Your task to perform on an android device: Open Wikipedia Image 0: 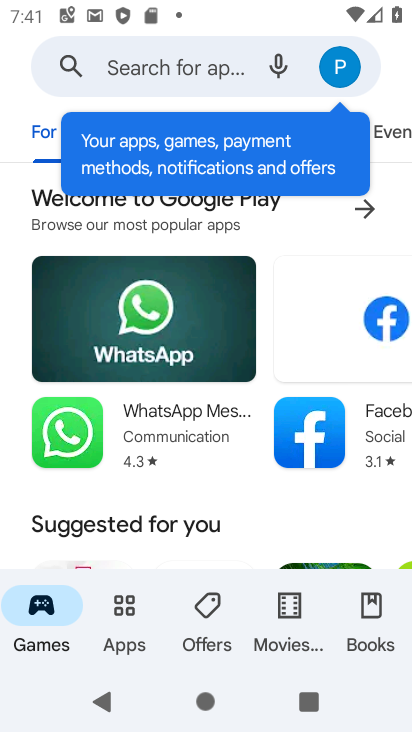
Step 0: press home button
Your task to perform on an android device: Open Wikipedia Image 1: 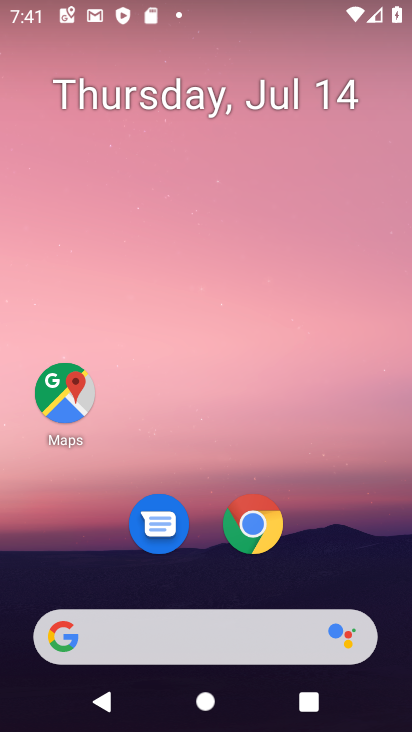
Step 1: click (251, 544)
Your task to perform on an android device: Open Wikipedia Image 2: 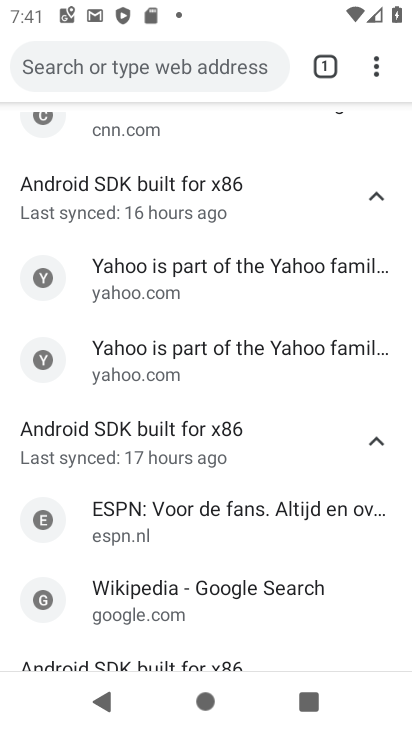
Step 2: press back button
Your task to perform on an android device: Open Wikipedia Image 3: 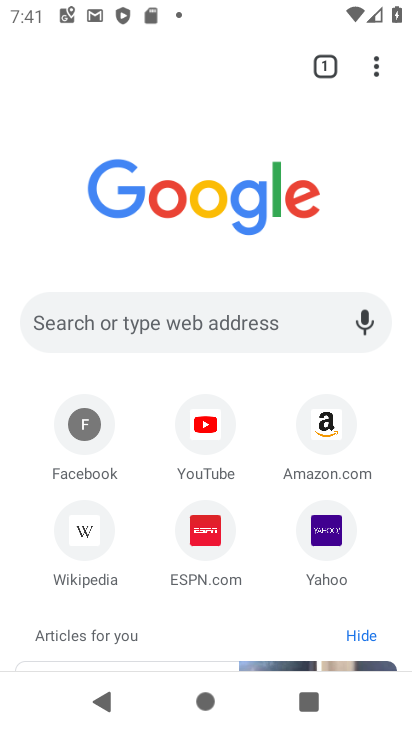
Step 3: click (80, 527)
Your task to perform on an android device: Open Wikipedia Image 4: 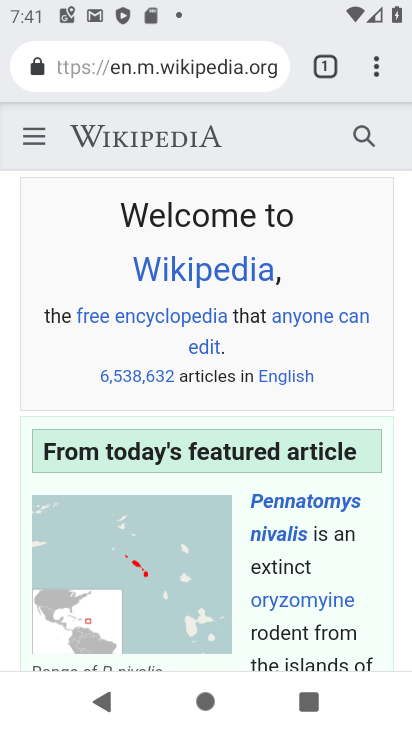
Step 4: task complete